Your task to perform on an android device: toggle notifications settings in the gmail app Image 0: 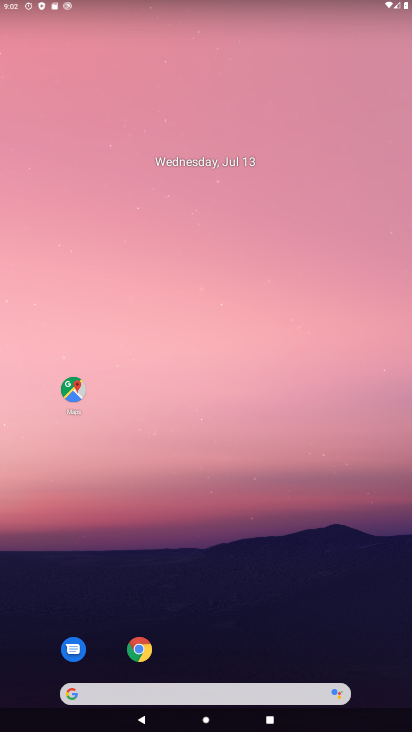
Step 0: drag from (270, 694) to (332, 9)
Your task to perform on an android device: toggle notifications settings in the gmail app Image 1: 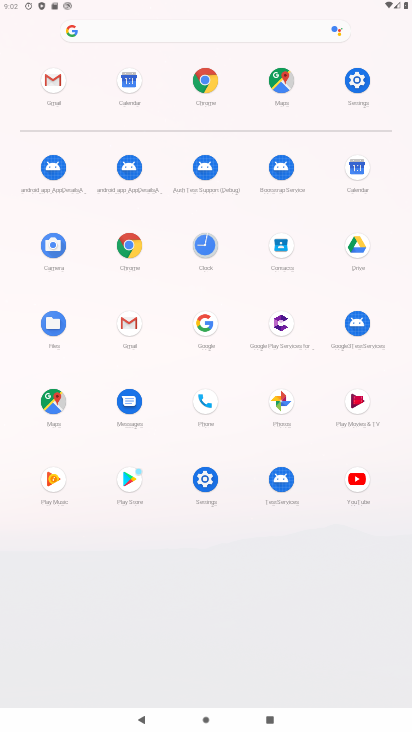
Step 1: click (119, 323)
Your task to perform on an android device: toggle notifications settings in the gmail app Image 2: 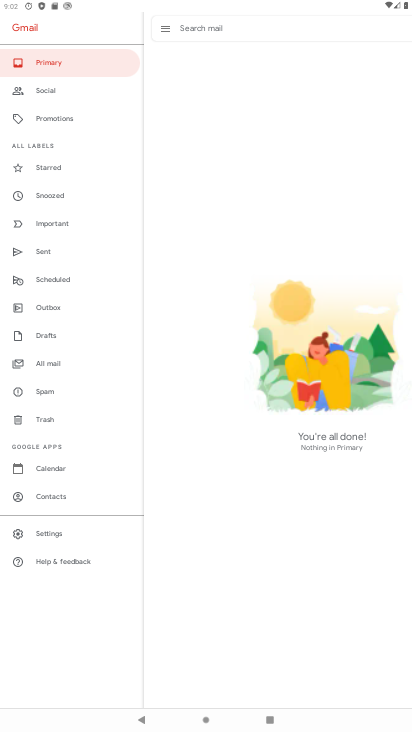
Step 2: click (80, 530)
Your task to perform on an android device: toggle notifications settings in the gmail app Image 3: 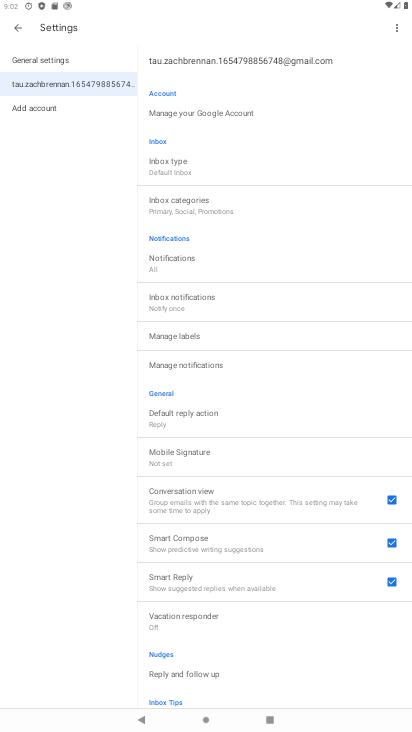
Step 3: click (210, 363)
Your task to perform on an android device: toggle notifications settings in the gmail app Image 4: 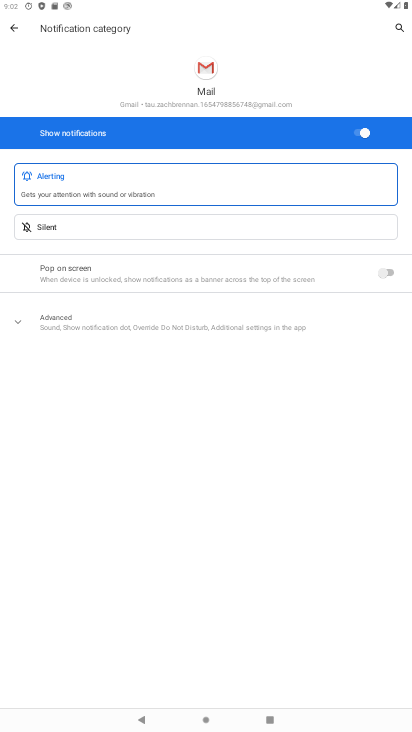
Step 4: click (367, 135)
Your task to perform on an android device: toggle notifications settings in the gmail app Image 5: 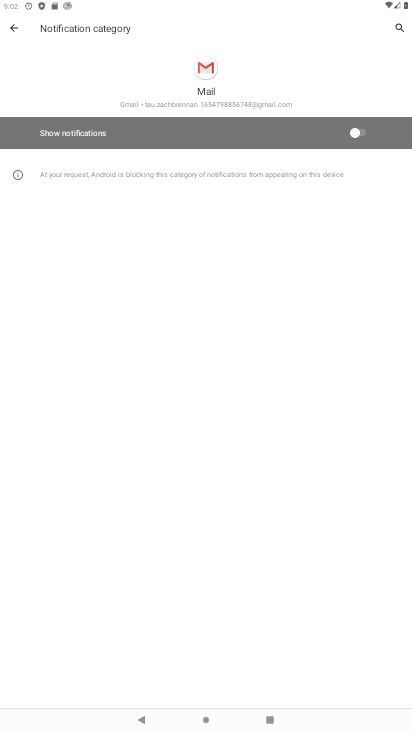
Step 5: task complete